Your task to perform on an android device: What is the recent news? Image 0: 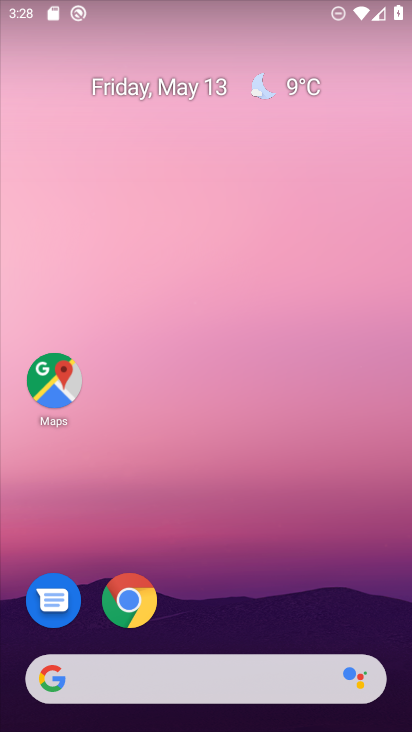
Step 0: drag from (180, 633) to (221, 173)
Your task to perform on an android device: What is the recent news? Image 1: 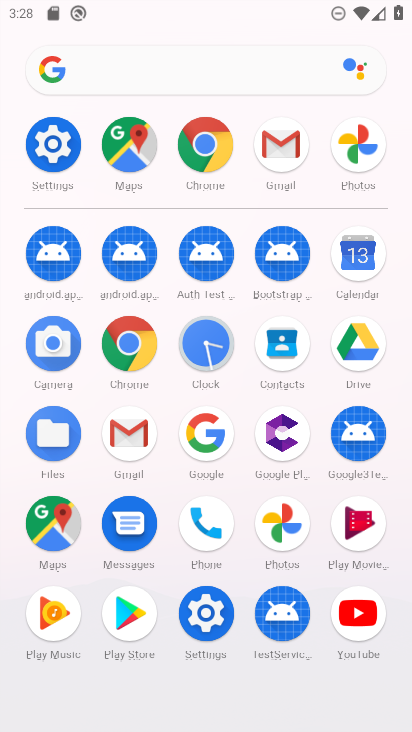
Step 1: click (214, 78)
Your task to perform on an android device: What is the recent news? Image 2: 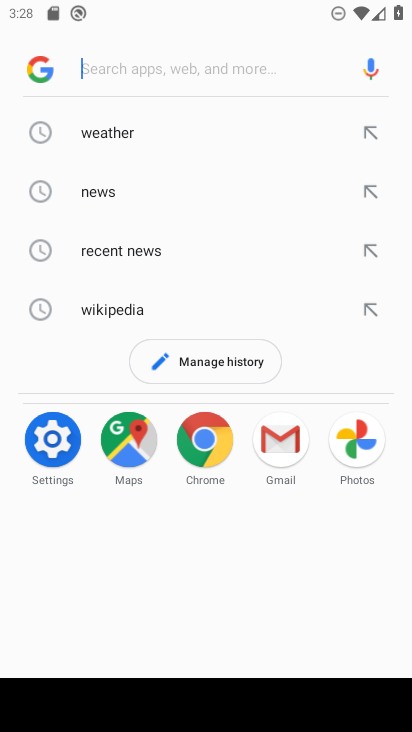
Step 2: click (136, 257)
Your task to perform on an android device: What is the recent news? Image 3: 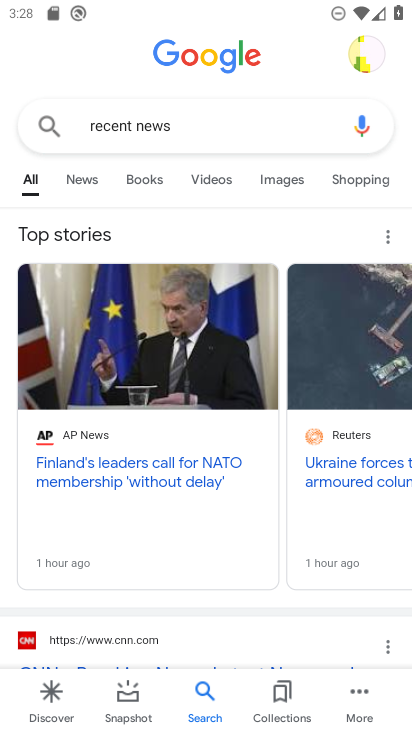
Step 3: drag from (234, 532) to (234, 222)
Your task to perform on an android device: What is the recent news? Image 4: 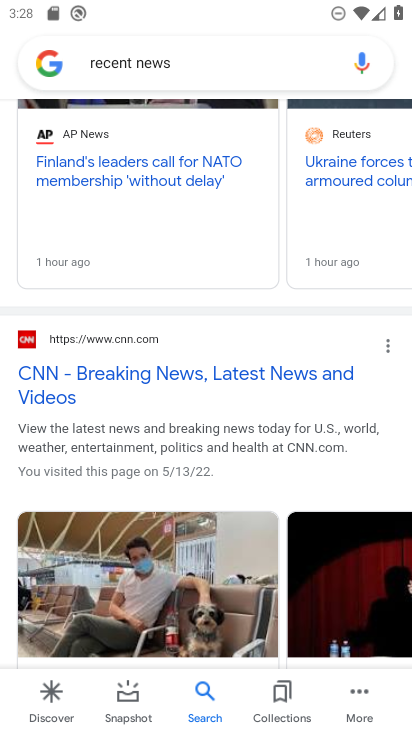
Step 4: drag from (211, 507) to (202, 270)
Your task to perform on an android device: What is the recent news? Image 5: 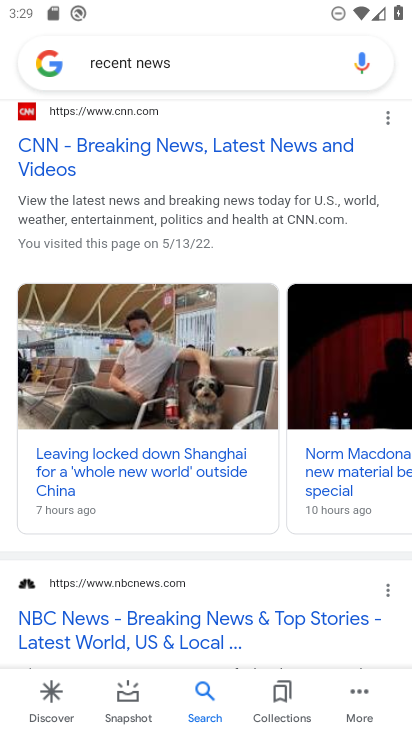
Step 5: drag from (237, 551) to (298, 254)
Your task to perform on an android device: What is the recent news? Image 6: 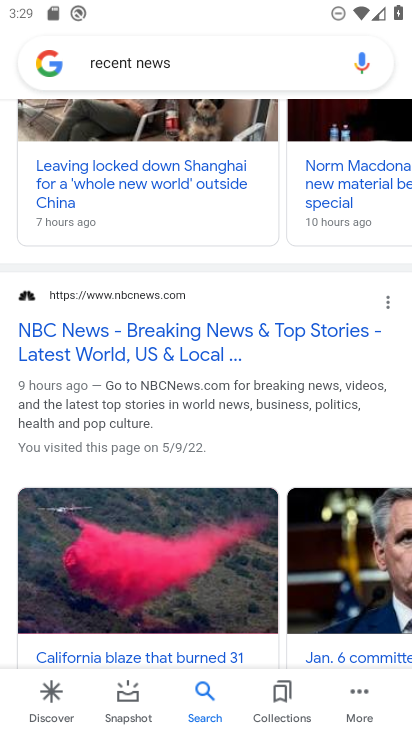
Step 6: drag from (242, 377) to (373, 730)
Your task to perform on an android device: What is the recent news? Image 7: 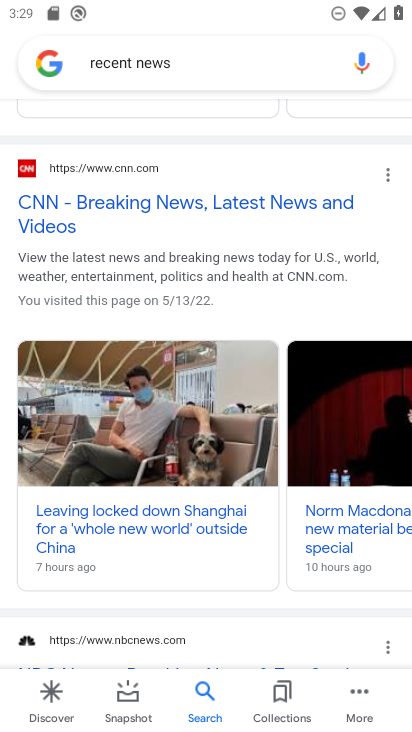
Step 7: drag from (250, 304) to (322, 669)
Your task to perform on an android device: What is the recent news? Image 8: 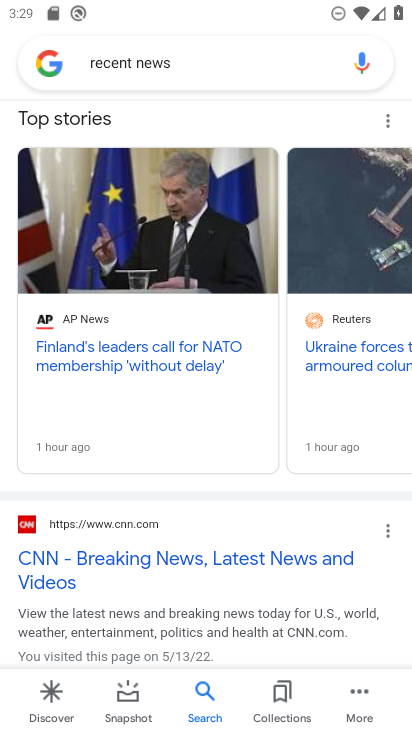
Step 8: click (105, 572)
Your task to perform on an android device: What is the recent news? Image 9: 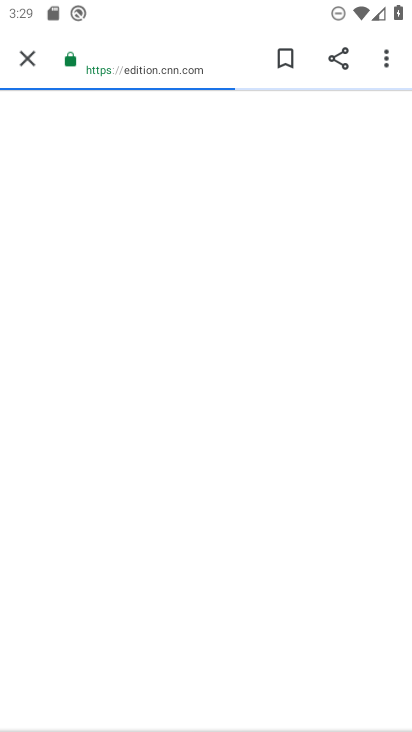
Step 9: task complete